Your task to perform on an android device: Search for sushi restaurants on Maps Image 0: 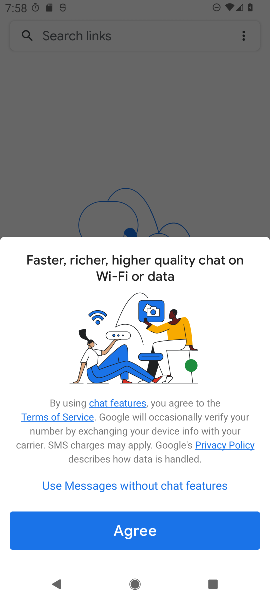
Step 0: press home button
Your task to perform on an android device: Search for sushi restaurants on Maps Image 1: 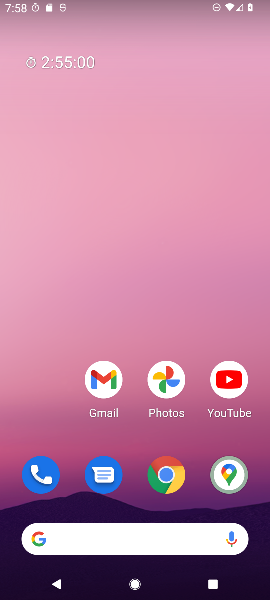
Step 1: drag from (63, 439) to (53, 193)
Your task to perform on an android device: Search for sushi restaurants on Maps Image 2: 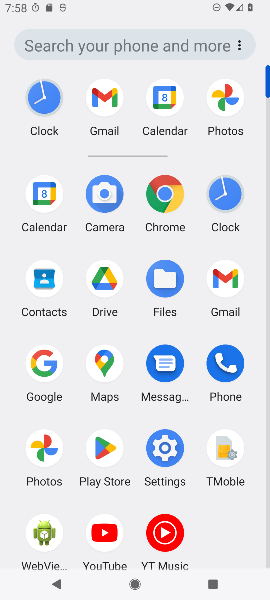
Step 2: click (106, 362)
Your task to perform on an android device: Search for sushi restaurants on Maps Image 3: 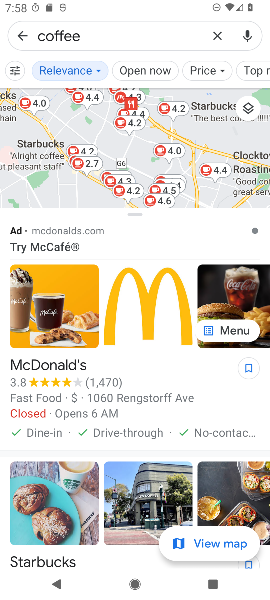
Step 3: click (215, 40)
Your task to perform on an android device: Search for sushi restaurants on Maps Image 4: 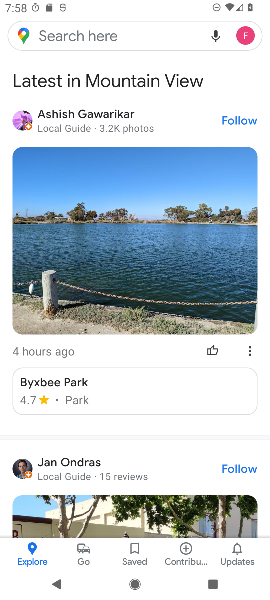
Step 4: click (153, 27)
Your task to perform on an android device: Search for sushi restaurants on Maps Image 5: 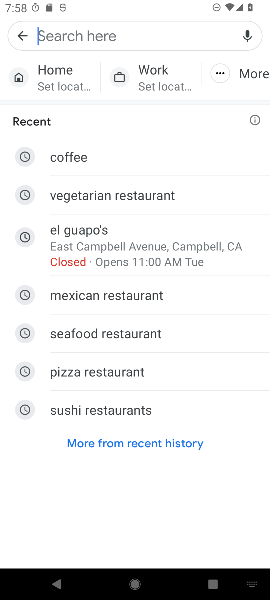
Step 5: type "sushi restaurants"
Your task to perform on an android device: Search for sushi restaurants on Maps Image 6: 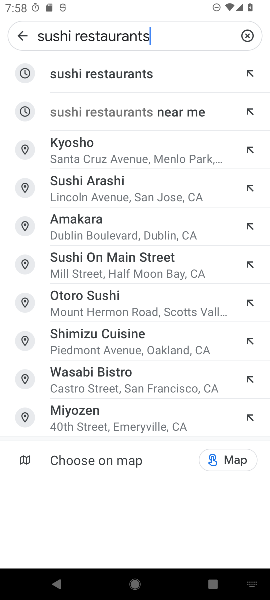
Step 6: click (150, 73)
Your task to perform on an android device: Search for sushi restaurants on Maps Image 7: 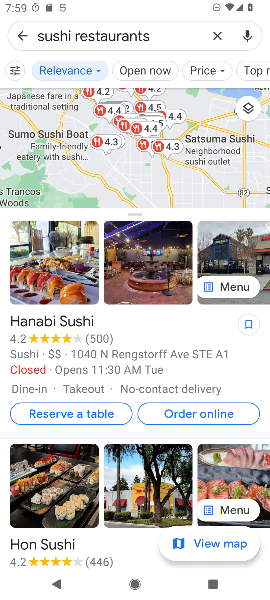
Step 7: task complete